Your task to perform on an android device: Is it going to rain today? Image 0: 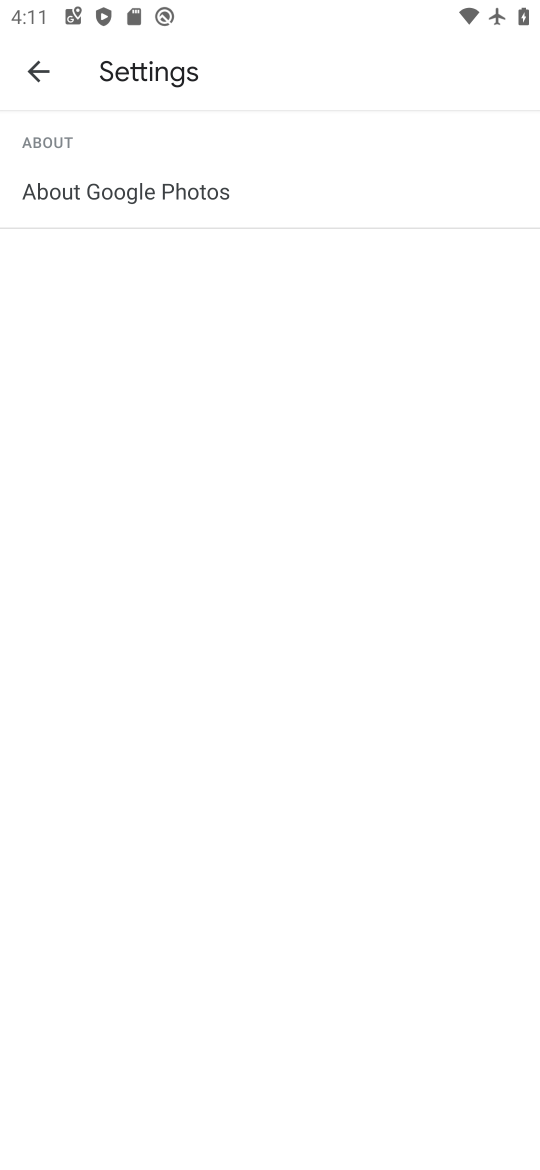
Step 0: press home button
Your task to perform on an android device: Is it going to rain today? Image 1: 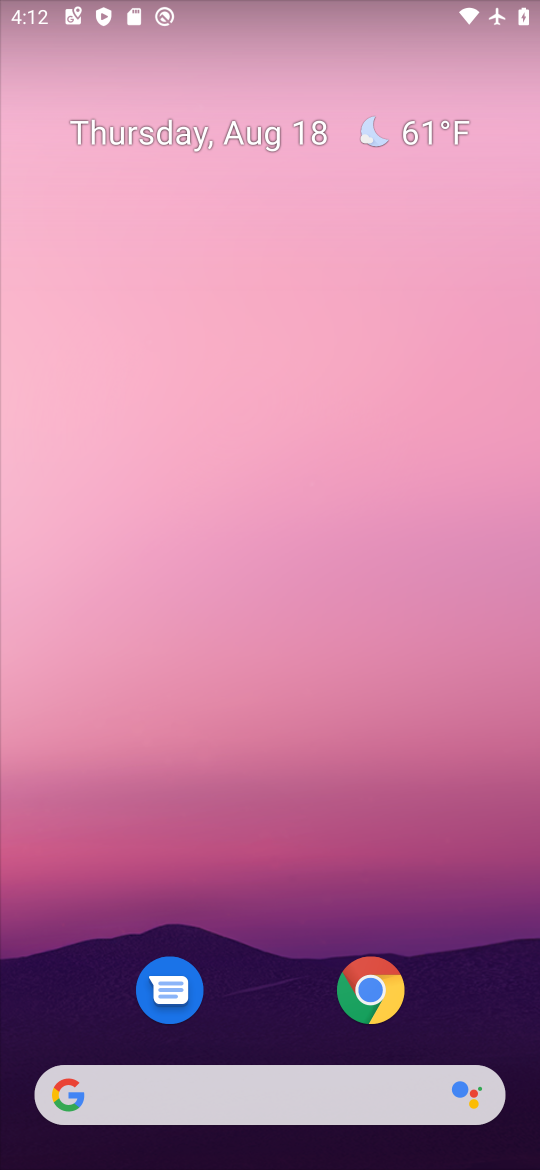
Step 1: click (451, 122)
Your task to perform on an android device: Is it going to rain today? Image 2: 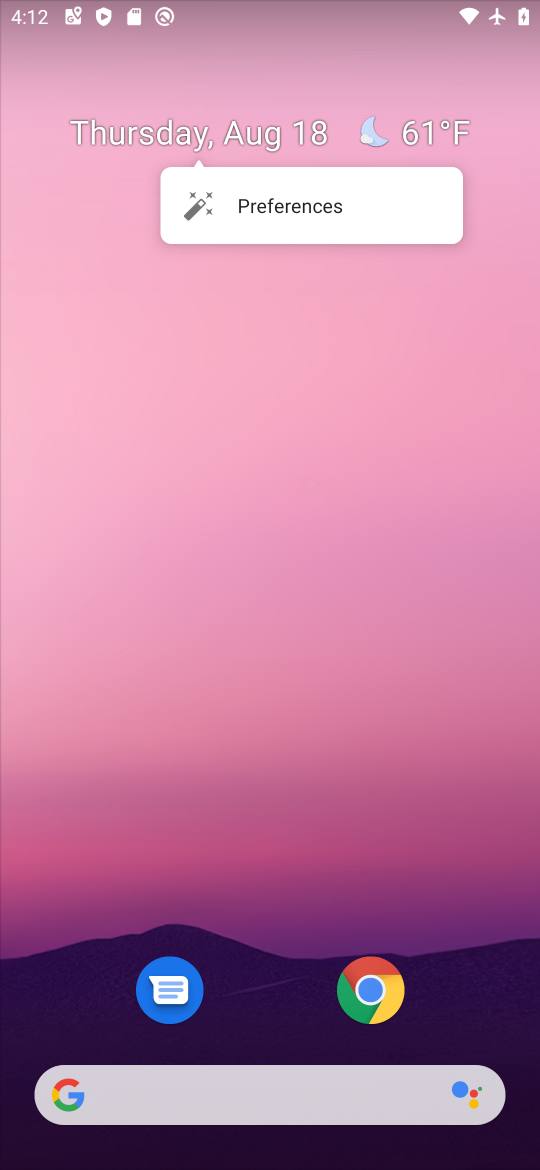
Step 2: click (441, 127)
Your task to perform on an android device: Is it going to rain today? Image 3: 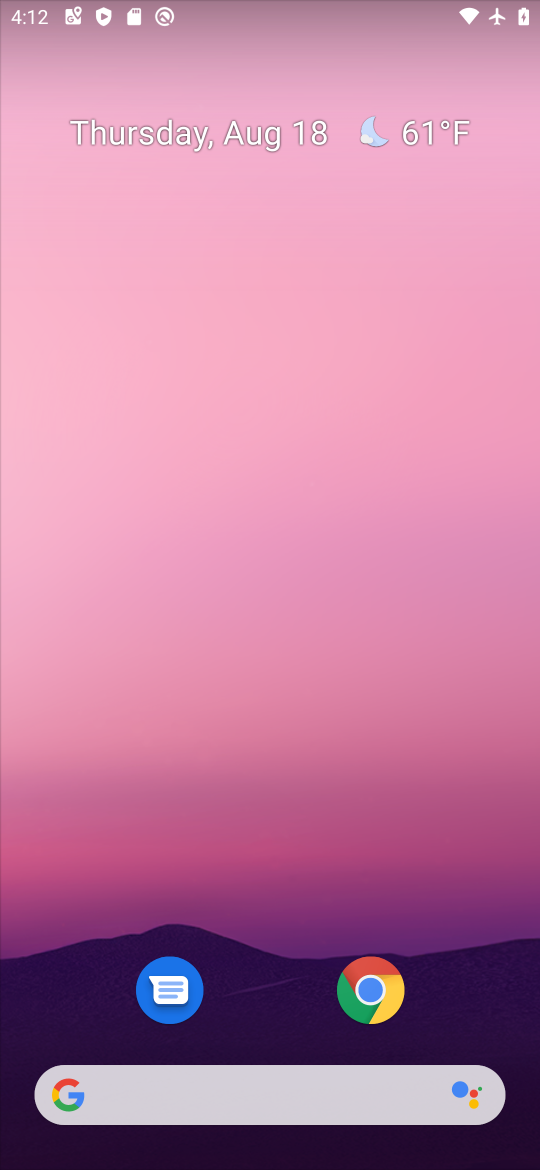
Step 3: click (441, 127)
Your task to perform on an android device: Is it going to rain today? Image 4: 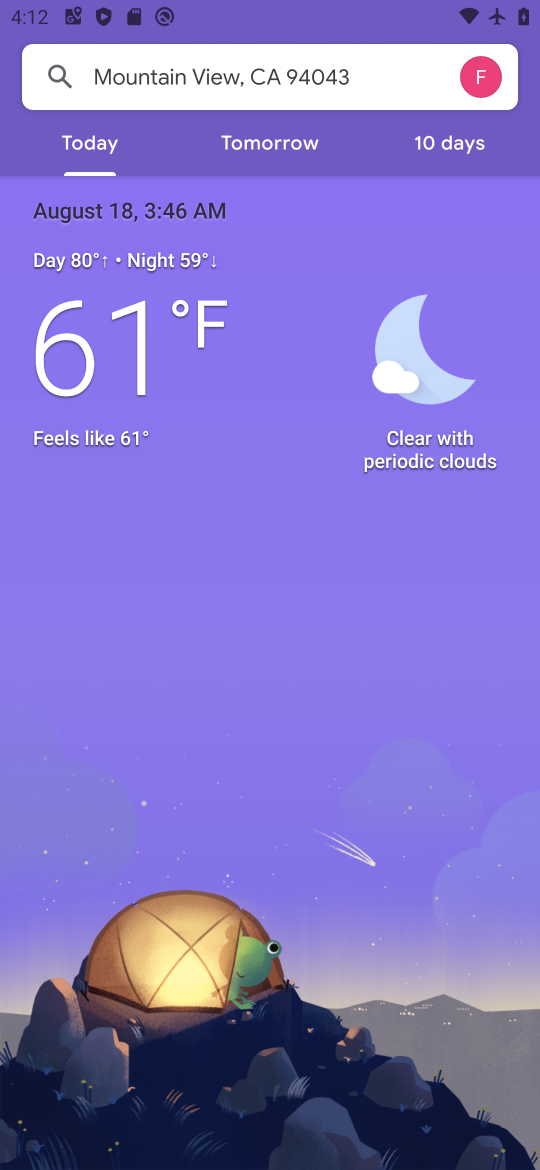
Step 4: task complete